Your task to perform on an android device: open sync settings in chrome Image 0: 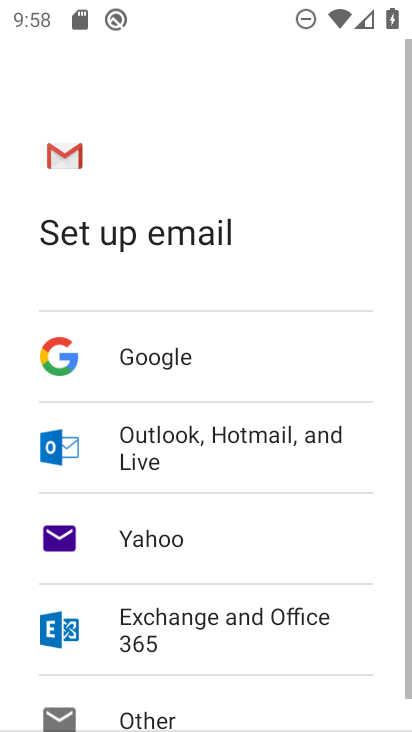
Step 0: press home button
Your task to perform on an android device: open sync settings in chrome Image 1: 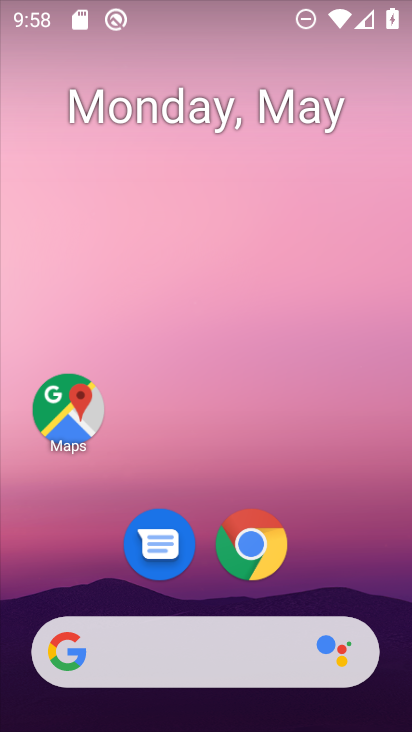
Step 1: click (260, 549)
Your task to perform on an android device: open sync settings in chrome Image 2: 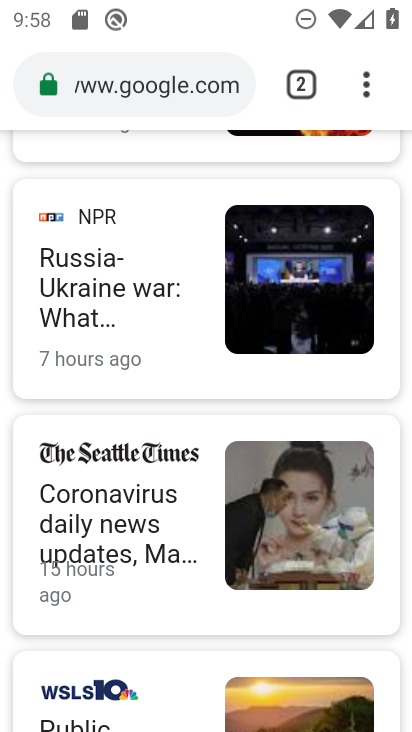
Step 2: click (374, 90)
Your task to perform on an android device: open sync settings in chrome Image 3: 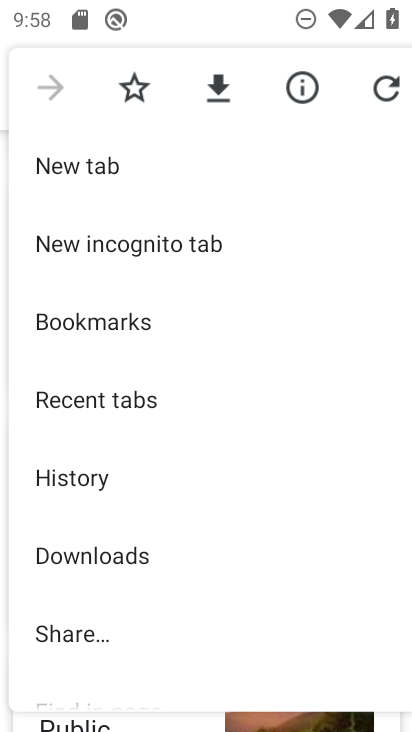
Step 3: drag from (228, 649) to (262, 262)
Your task to perform on an android device: open sync settings in chrome Image 4: 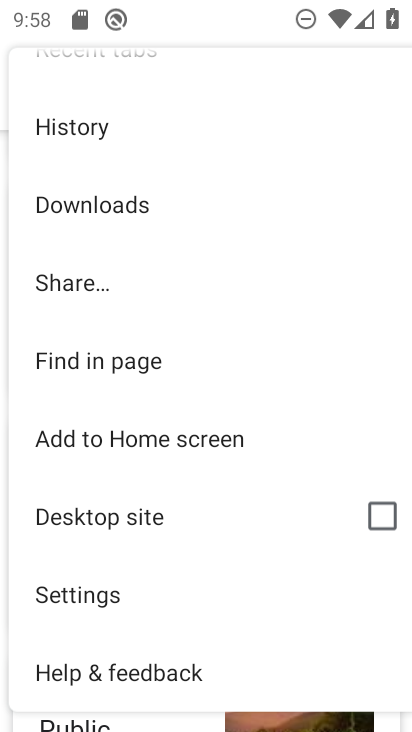
Step 4: click (94, 604)
Your task to perform on an android device: open sync settings in chrome Image 5: 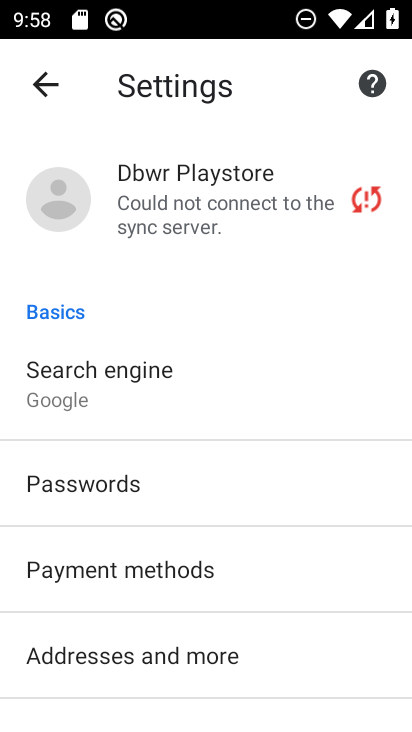
Step 5: drag from (264, 661) to (276, 233)
Your task to perform on an android device: open sync settings in chrome Image 6: 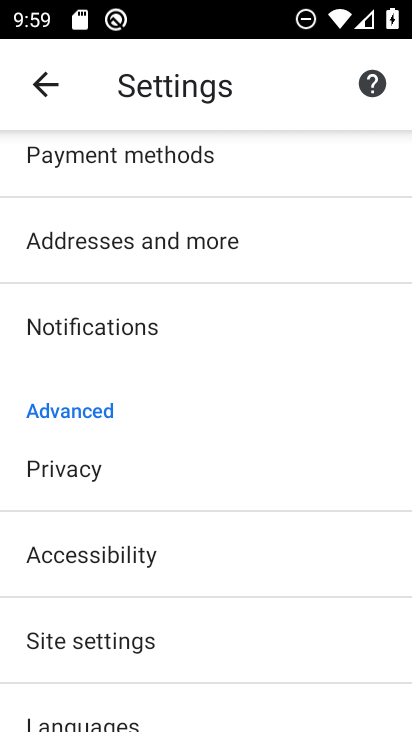
Step 6: click (99, 644)
Your task to perform on an android device: open sync settings in chrome Image 7: 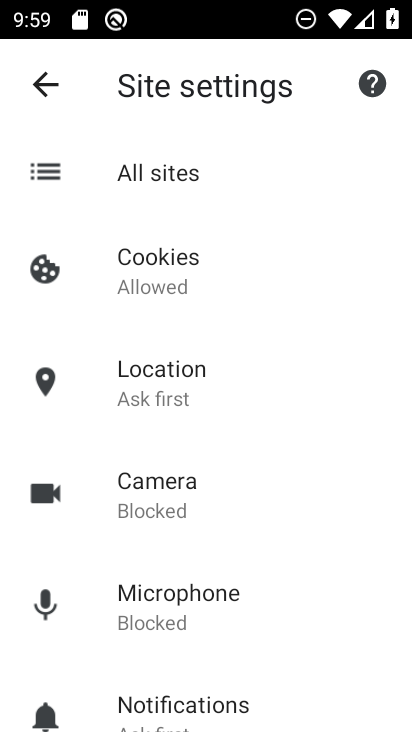
Step 7: drag from (267, 615) to (268, 221)
Your task to perform on an android device: open sync settings in chrome Image 8: 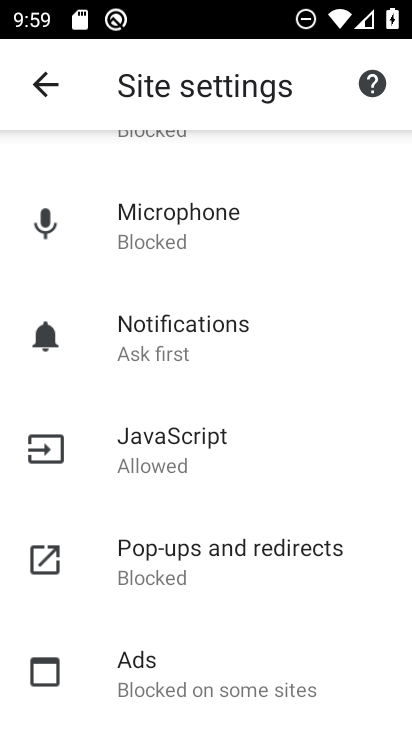
Step 8: drag from (278, 638) to (260, 290)
Your task to perform on an android device: open sync settings in chrome Image 9: 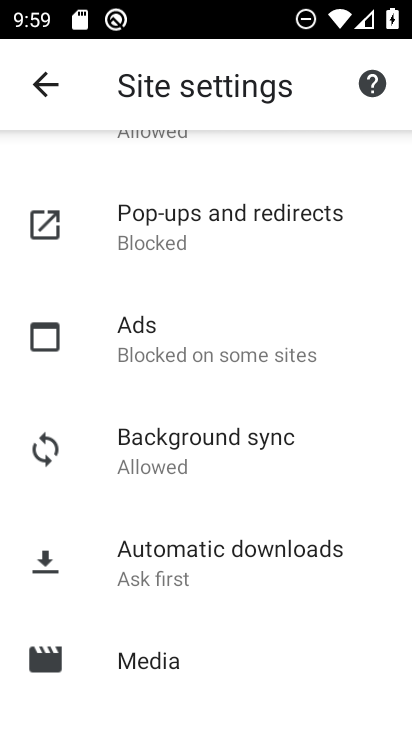
Step 9: click (185, 446)
Your task to perform on an android device: open sync settings in chrome Image 10: 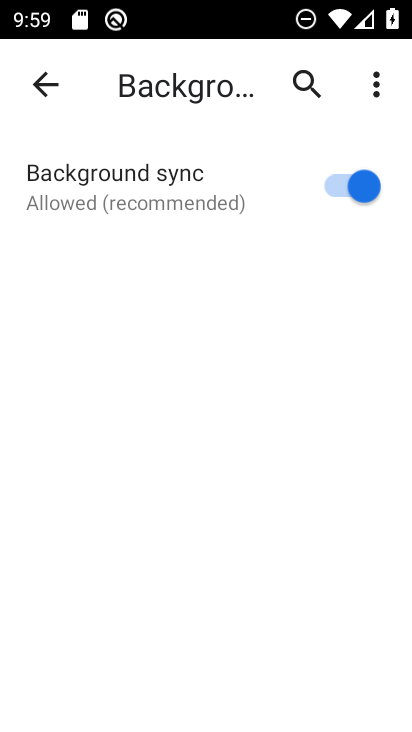
Step 10: task complete